Your task to perform on an android device: Open the web browser Image 0: 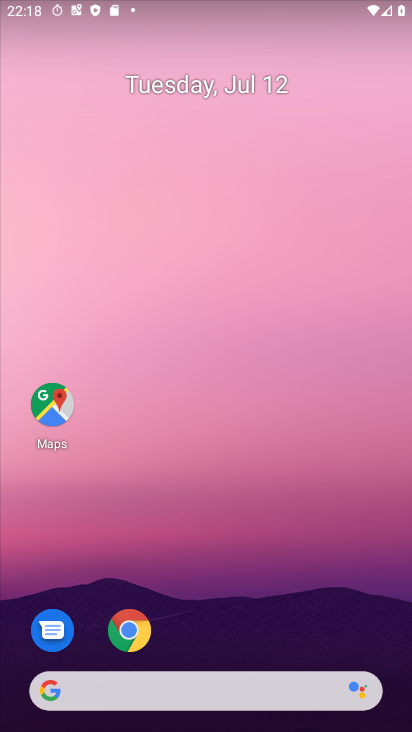
Step 0: click (120, 626)
Your task to perform on an android device: Open the web browser Image 1: 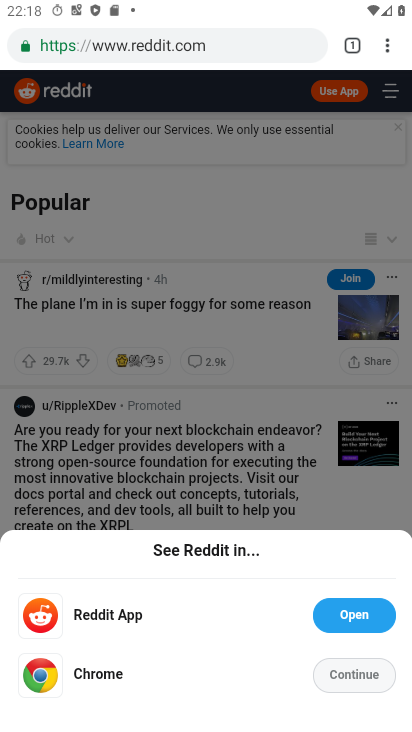
Step 1: task complete